Your task to perform on an android device: star an email in the gmail app Image 0: 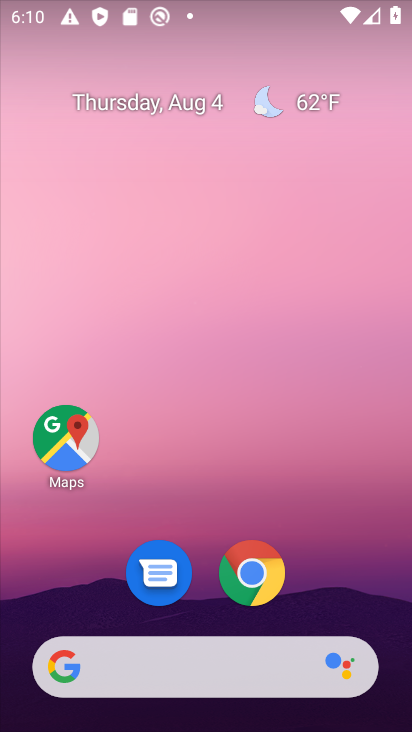
Step 0: drag from (209, 609) to (202, 172)
Your task to perform on an android device: star an email in the gmail app Image 1: 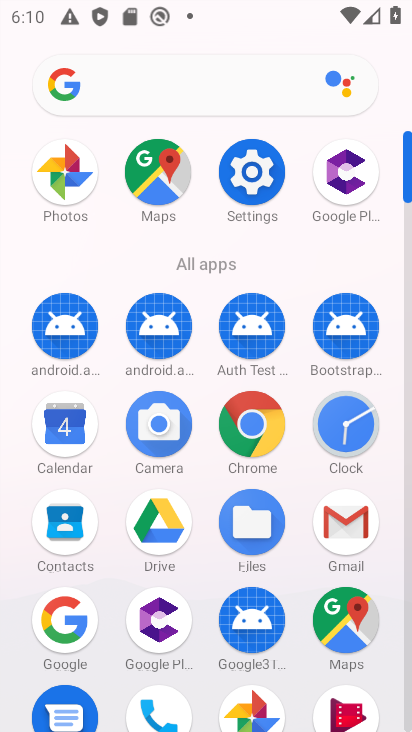
Step 1: click (341, 521)
Your task to perform on an android device: star an email in the gmail app Image 2: 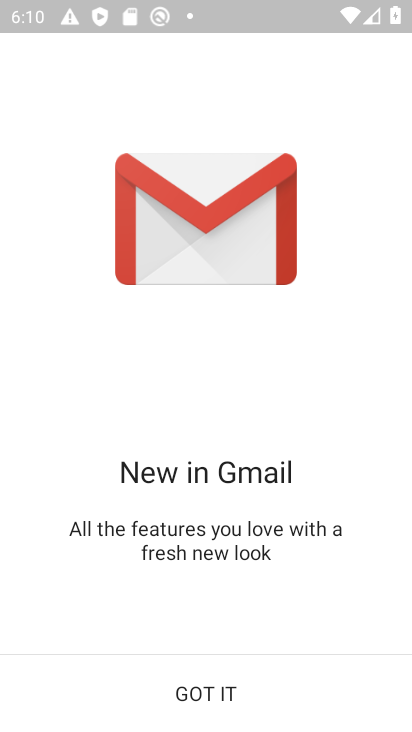
Step 2: click (254, 685)
Your task to perform on an android device: star an email in the gmail app Image 3: 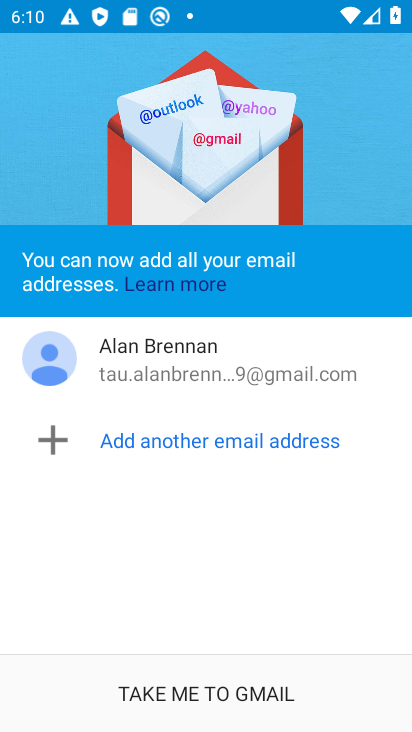
Step 3: click (238, 699)
Your task to perform on an android device: star an email in the gmail app Image 4: 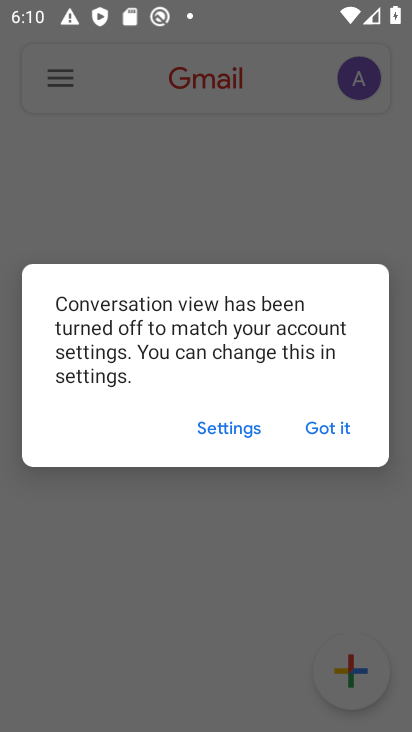
Step 4: click (357, 438)
Your task to perform on an android device: star an email in the gmail app Image 5: 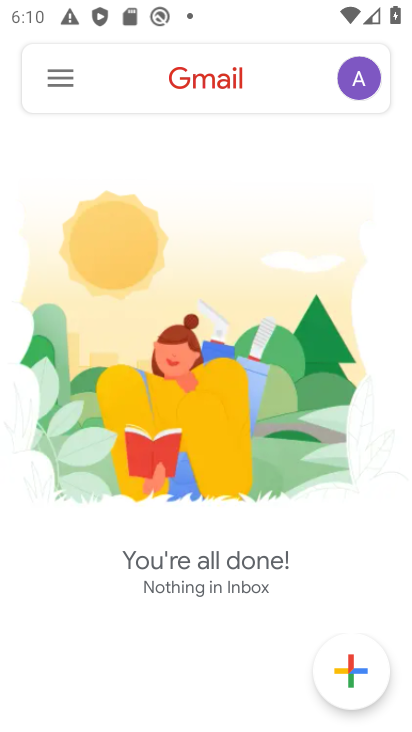
Step 5: click (60, 85)
Your task to perform on an android device: star an email in the gmail app Image 6: 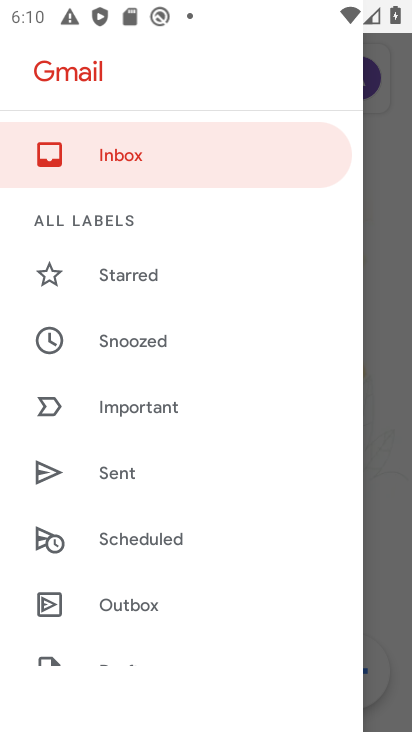
Step 6: drag from (269, 566) to (247, 180)
Your task to perform on an android device: star an email in the gmail app Image 7: 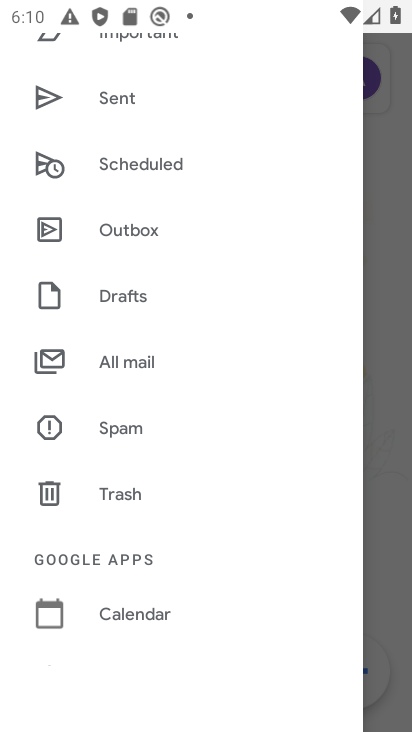
Step 7: click (127, 363)
Your task to perform on an android device: star an email in the gmail app Image 8: 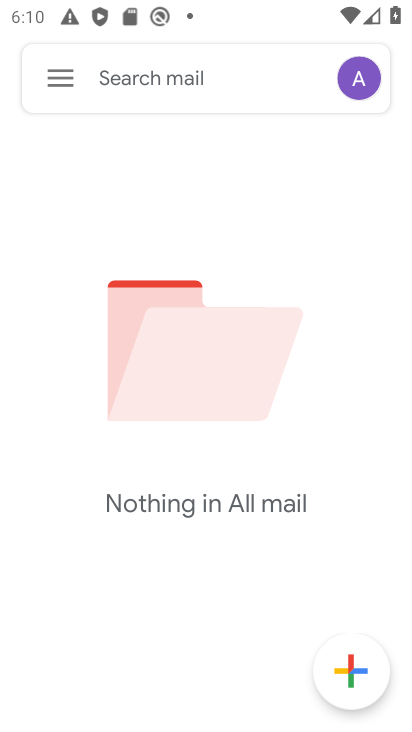
Step 8: task complete